Your task to perform on an android device: toggle location history Image 0: 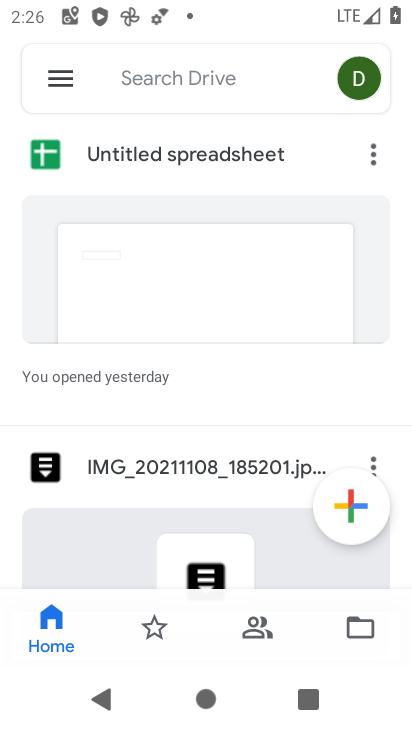
Step 0: press home button
Your task to perform on an android device: toggle location history Image 1: 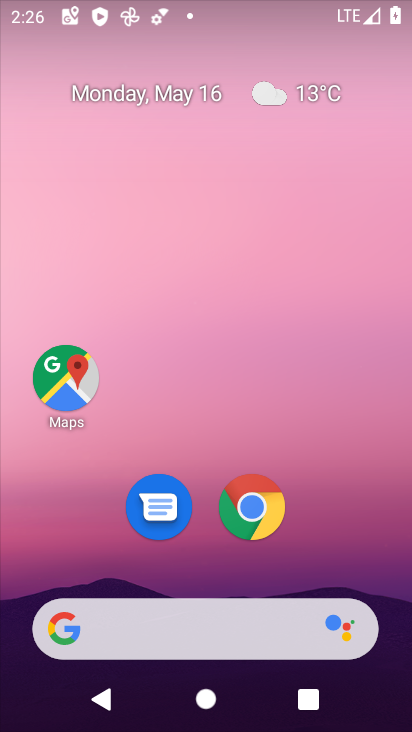
Step 1: drag from (316, 428) to (203, 18)
Your task to perform on an android device: toggle location history Image 2: 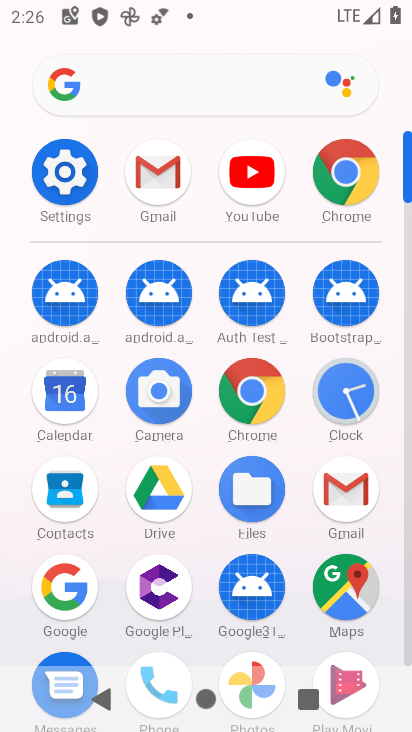
Step 2: click (73, 166)
Your task to perform on an android device: toggle location history Image 3: 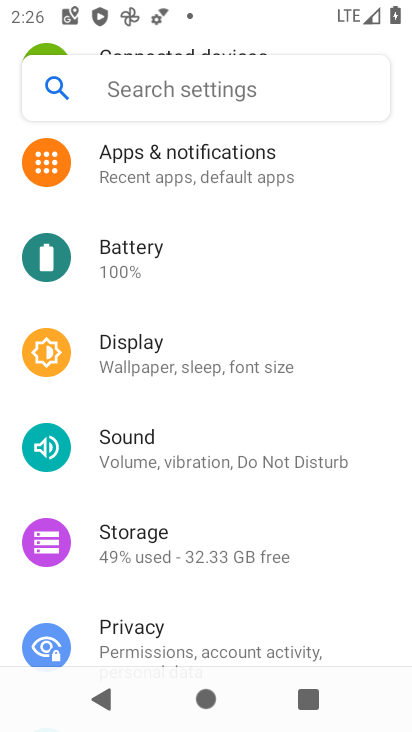
Step 3: drag from (223, 554) to (223, 146)
Your task to perform on an android device: toggle location history Image 4: 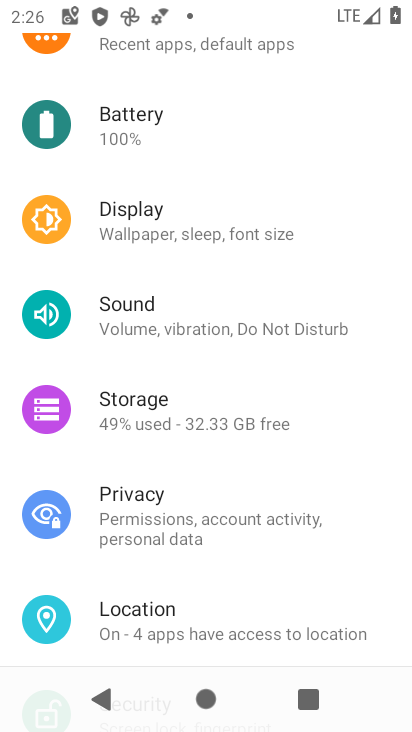
Step 4: click (214, 592)
Your task to perform on an android device: toggle location history Image 5: 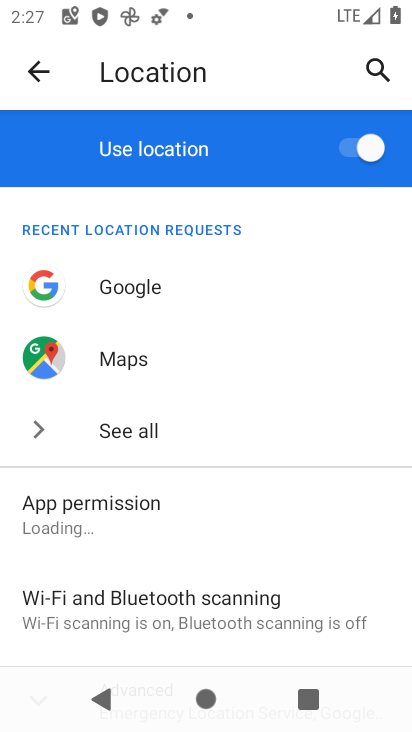
Step 5: drag from (231, 541) to (220, 150)
Your task to perform on an android device: toggle location history Image 6: 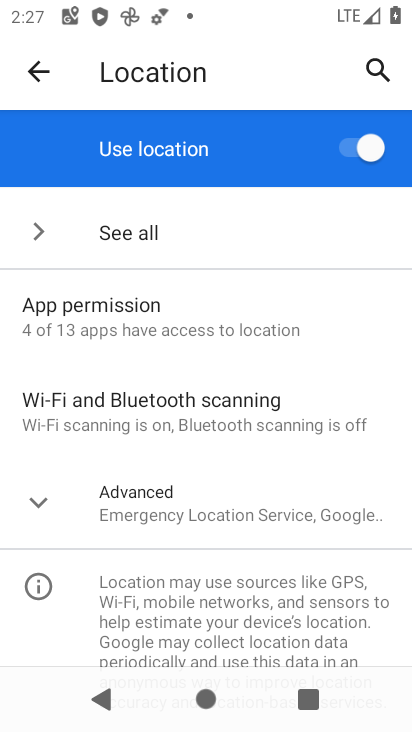
Step 6: click (234, 501)
Your task to perform on an android device: toggle location history Image 7: 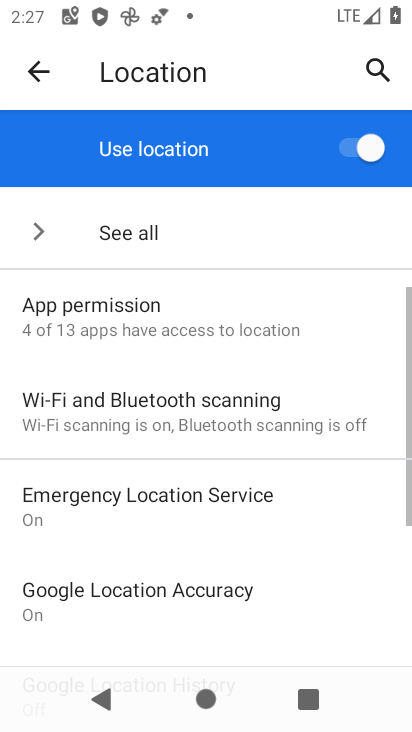
Step 7: drag from (216, 534) to (207, 225)
Your task to perform on an android device: toggle location history Image 8: 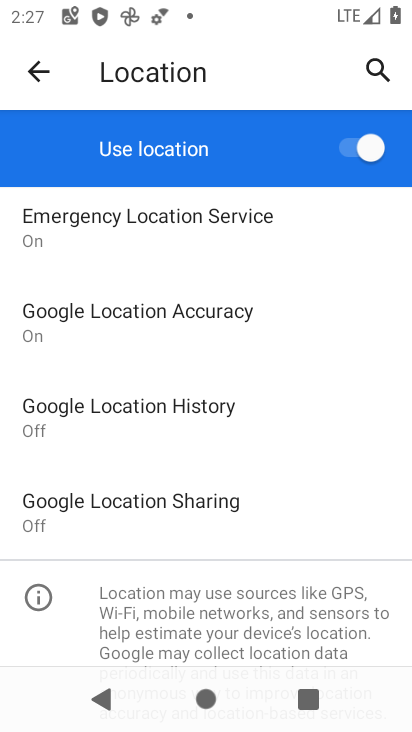
Step 8: click (228, 418)
Your task to perform on an android device: toggle location history Image 9: 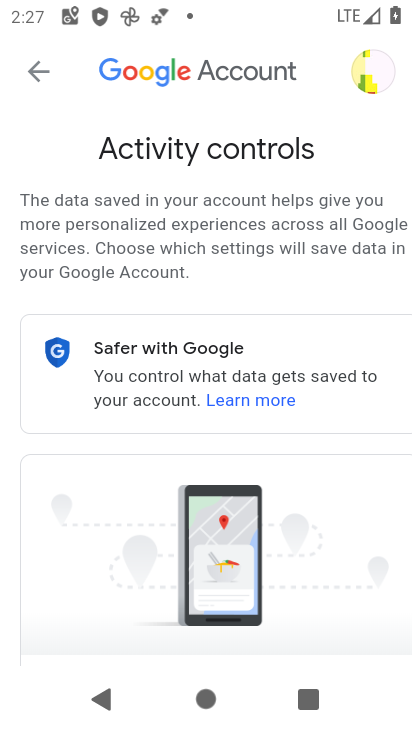
Step 9: drag from (331, 621) to (238, 168)
Your task to perform on an android device: toggle location history Image 10: 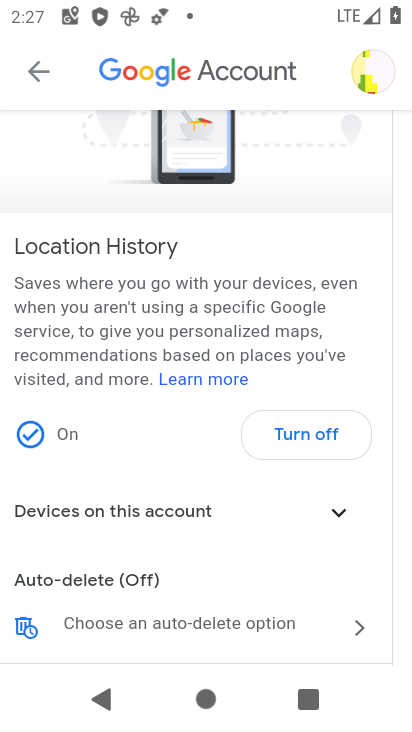
Step 10: click (299, 425)
Your task to perform on an android device: toggle location history Image 11: 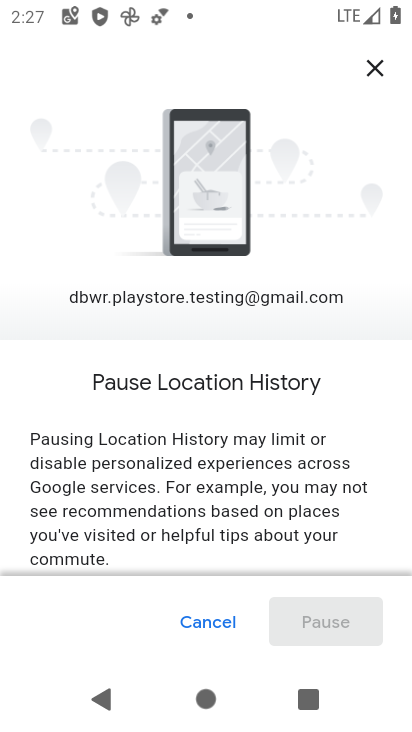
Step 11: drag from (230, 524) to (185, 96)
Your task to perform on an android device: toggle location history Image 12: 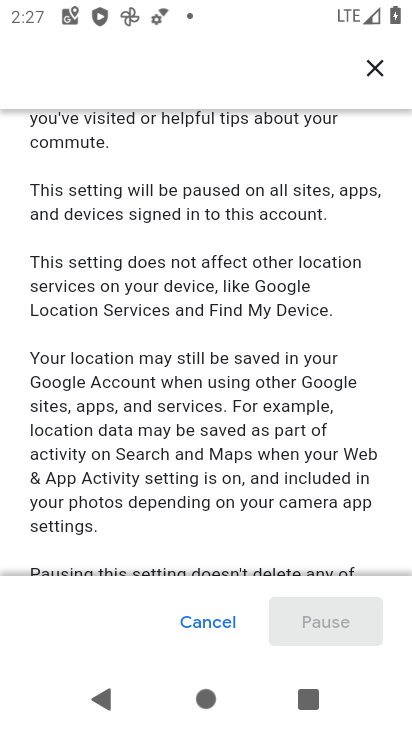
Step 12: drag from (199, 481) to (184, 87)
Your task to perform on an android device: toggle location history Image 13: 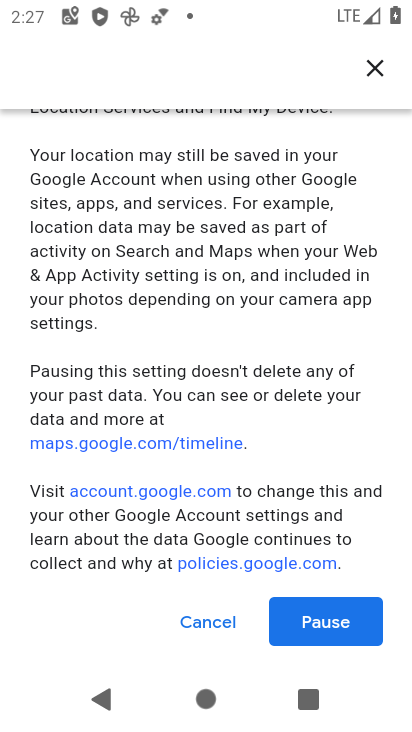
Step 13: click (338, 616)
Your task to perform on an android device: toggle location history Image 14: 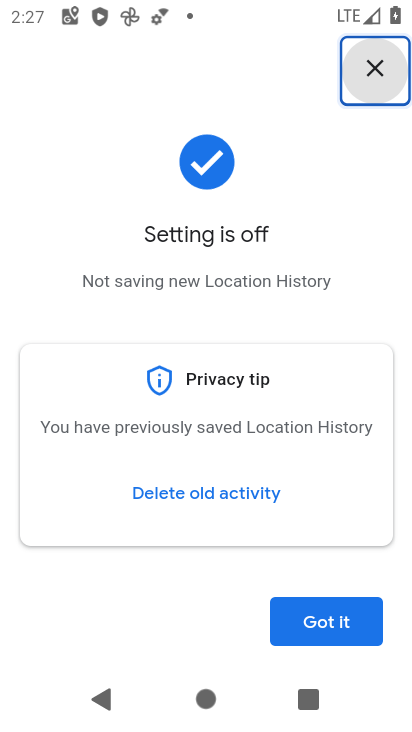
Step 14: click (333, 620)
Your task to perform on an android device: toggle location history Image 15: 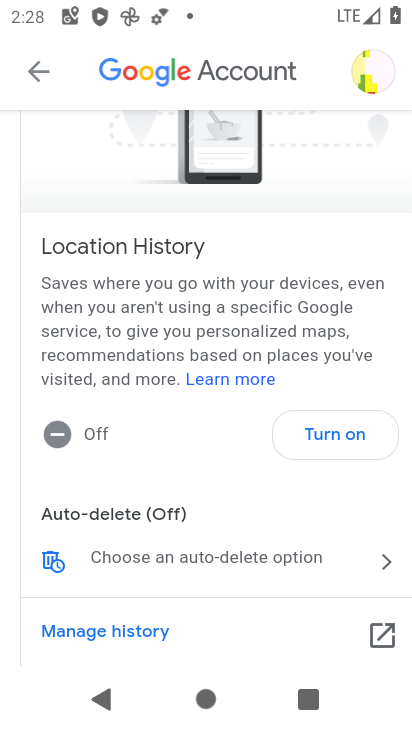
Step 15: task complete